Your task to perform on an android device: search for starred emails in the gmail app Image 0: 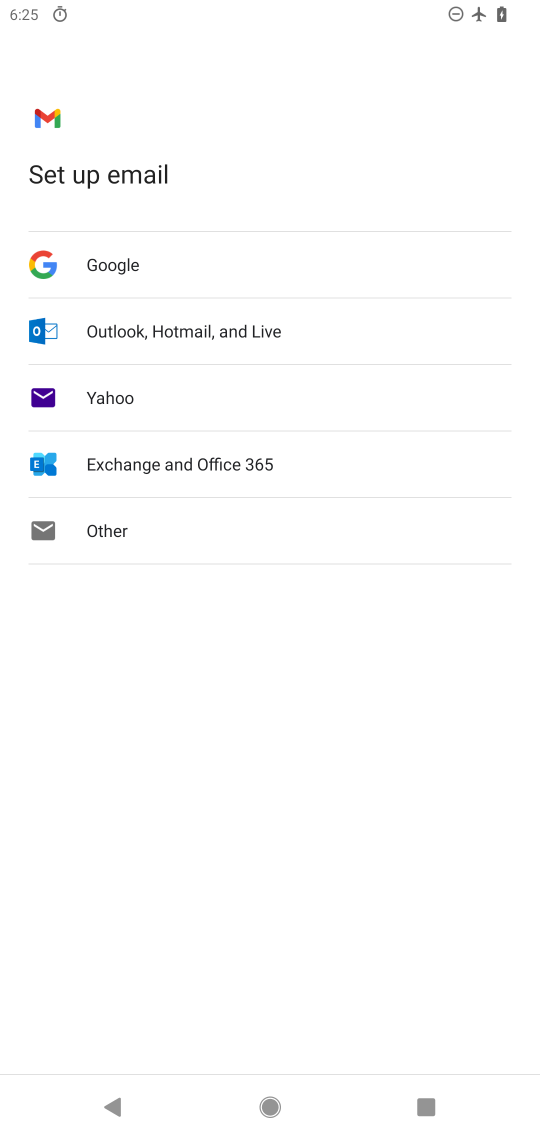
Step 0: press home button
Your task to perform on an android device: search for starred emails in the gmail app Image 1: 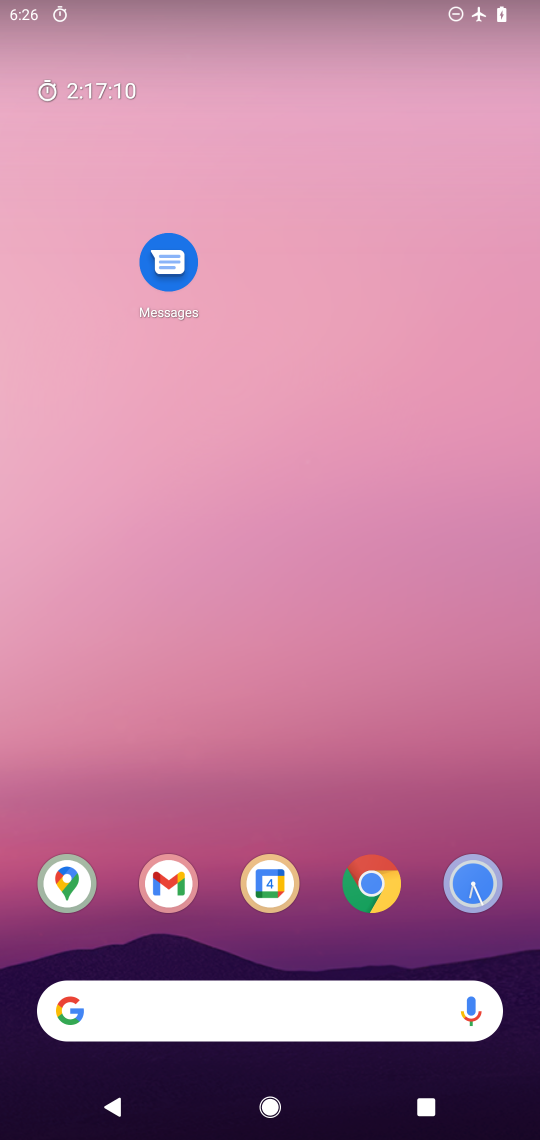
Step 1: drag from (311, 958) to (303, 294)
Your task to perform on an android device: search for starred emails in the gmail app Image 2: 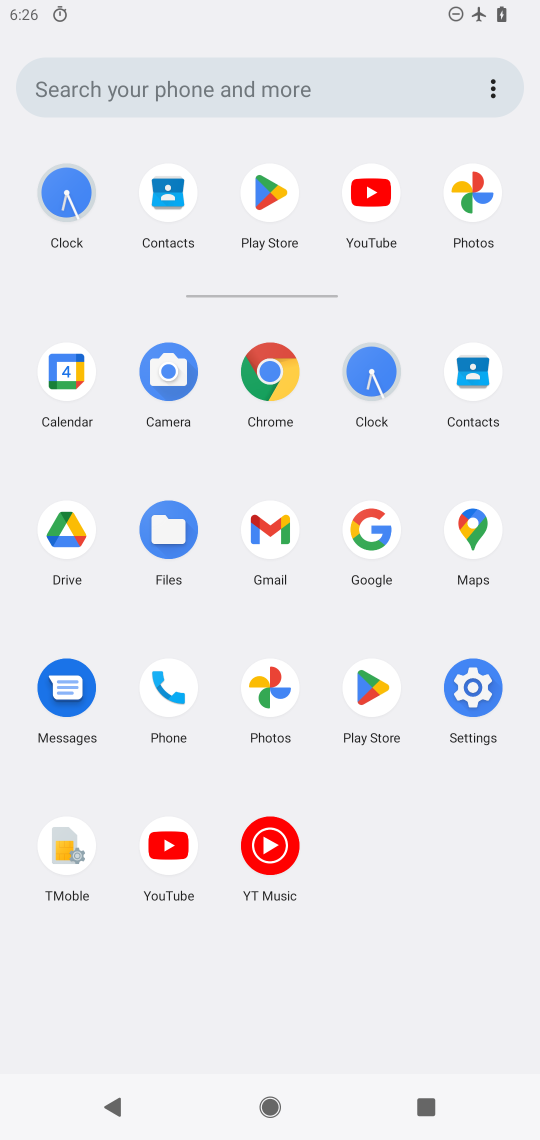
Step 2: click (256, 525)
Your task to perform on an android device: search for starred emails in the gmail app Image 3: 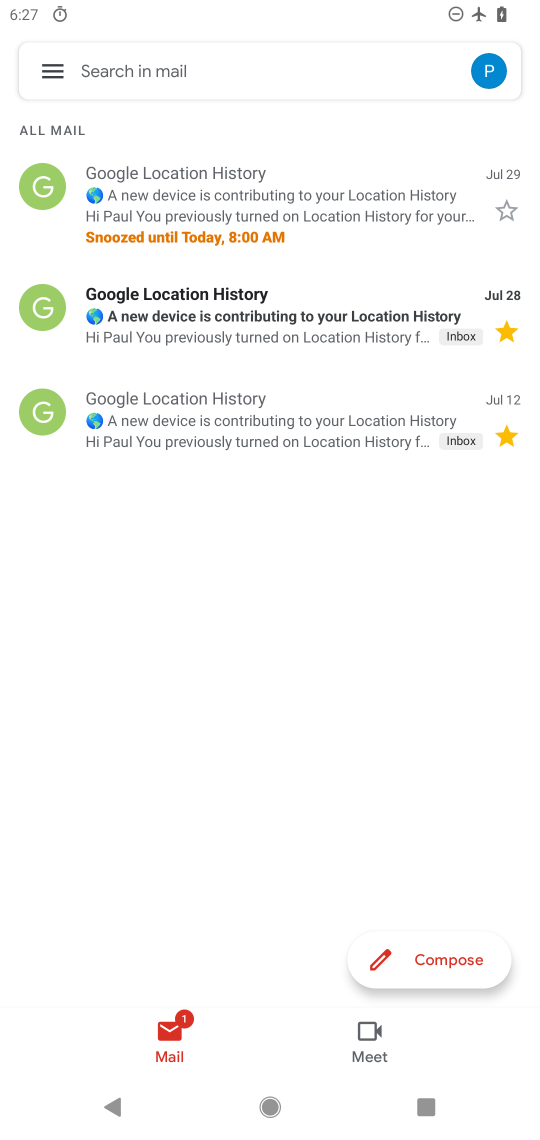
Step 3: click (52, 66)
Your task to perform on an android device: search for starred emails in the gmail app Image 4: 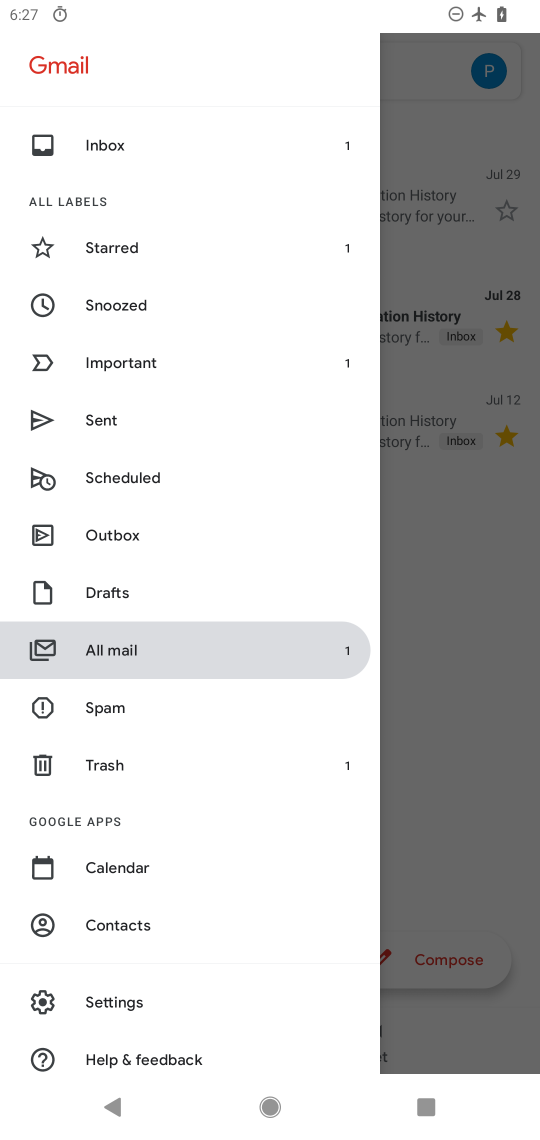
Step 4: click (123, 244)
Your task to perform on an android device: search for starred emails in the gmail app Image 5: 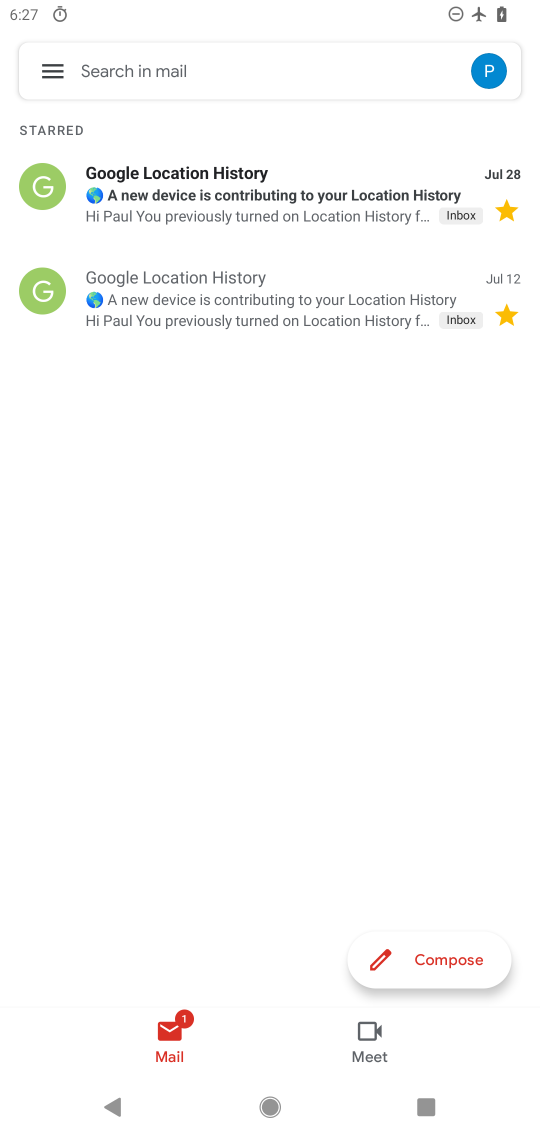
Step 5: task complete